Your task to perform on an android device: change your default location settings in chrome Image 0: 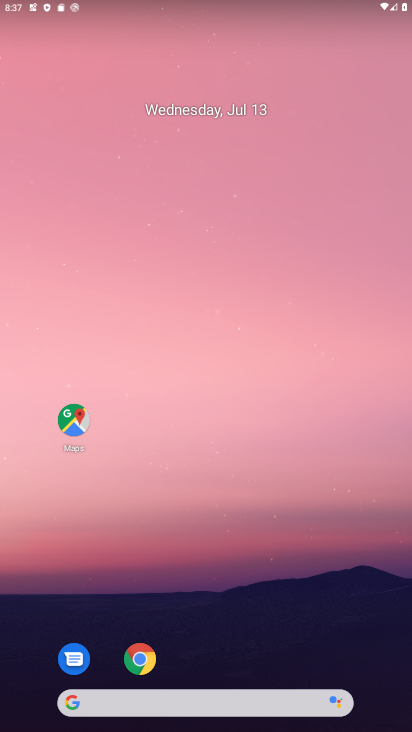
Step 0: drag from (46, 590) to (302, 44)
Your task to perform on an android device: change your default location settings in chrome Image 1: 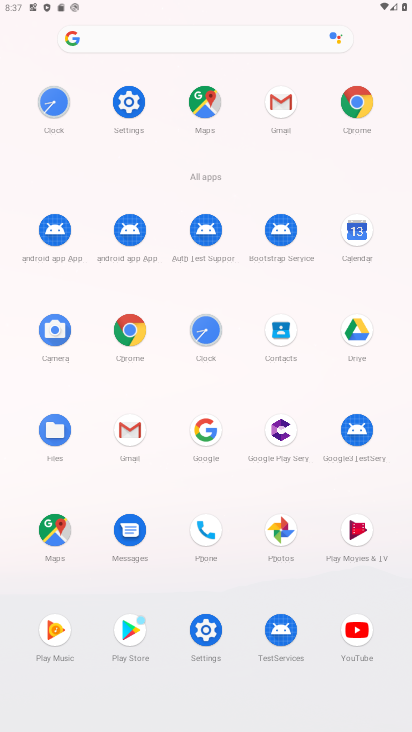
Step 1: click (129, 105)
Your task to perform on an android device: change your default location settings in chrome Image 2: 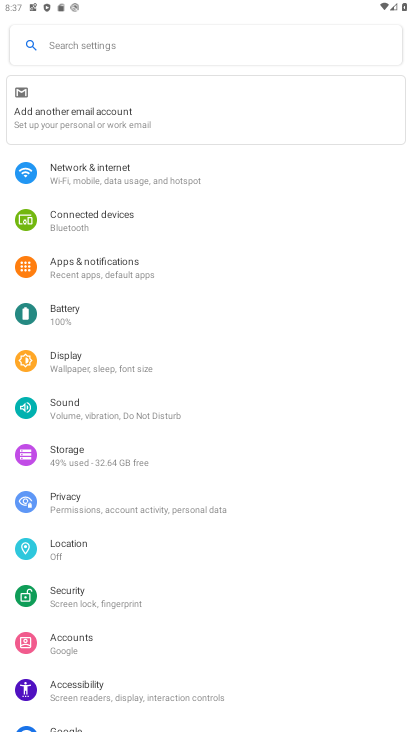
Step 2: press home button
Your task to perform on an android device: change your default location settings in chrome Image 3: 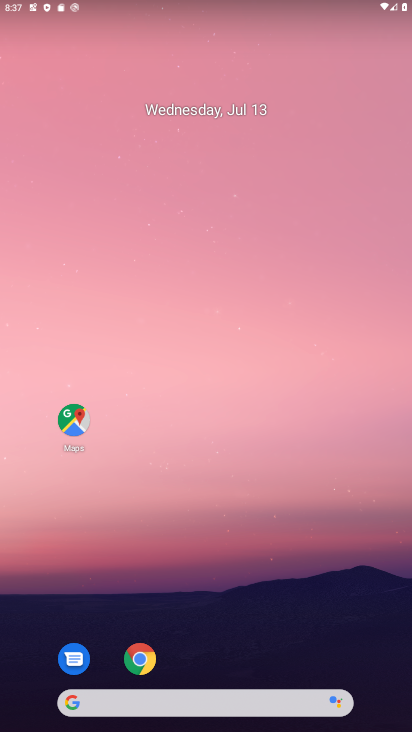
Step 3: click (141, 655)
Your task to perform on an android device: change your default location settings in chrome Image 4: 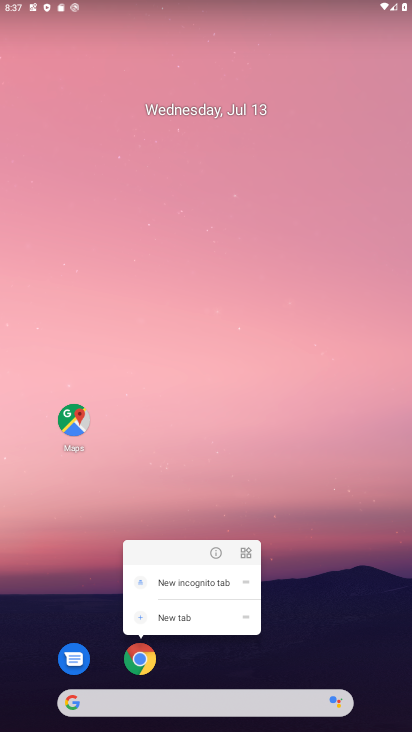
Step 4: click (133, 661)
Your task to perform on an android device: change your default location settings in chrome Image 5: 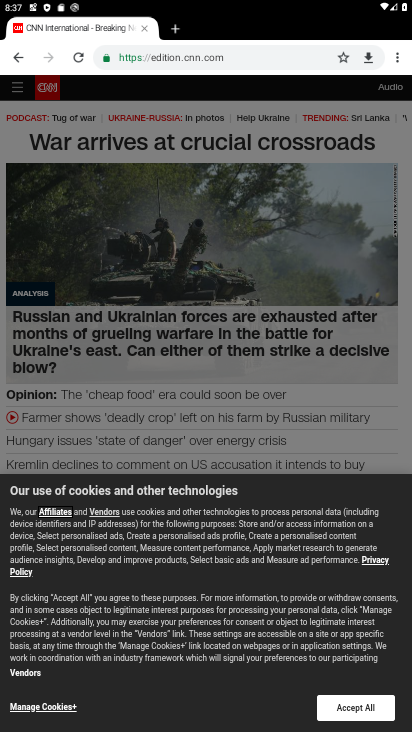
Step 5: press back button
Your task to perform on an android device: change your default location settings in chrome Image 6: 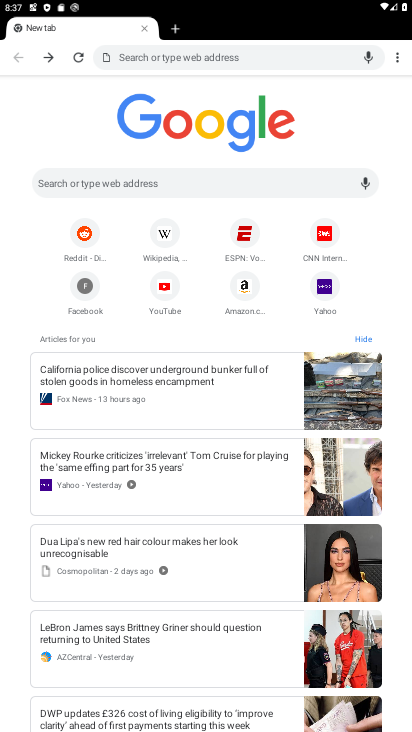
Step 6: click (399, 61)
Your task to perform on an android device: change your default location settings in chrome Image 7: 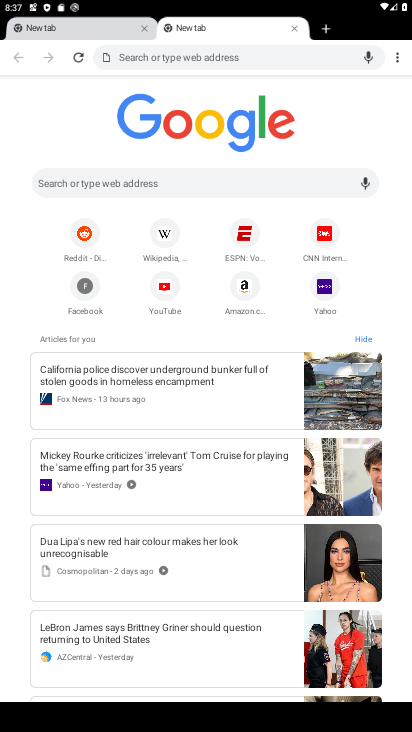
Step 7: click (398, 59)
Your task to perform on an android device: change your default location settings in chrome Image 8: 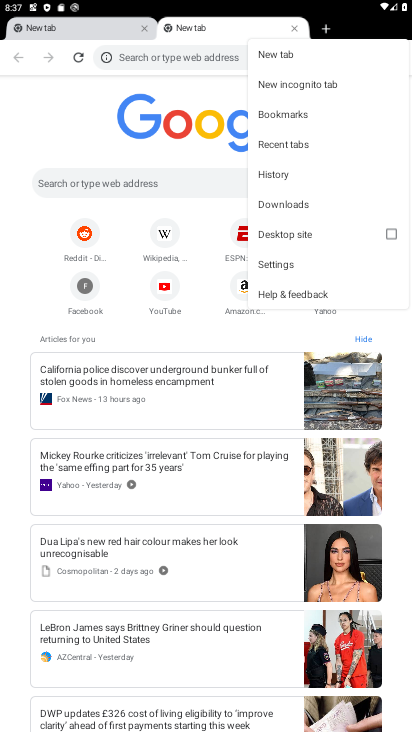
Step 8: click (281, 261)
Your task to perform on an android device: change your default location settings in chrome Image 9: 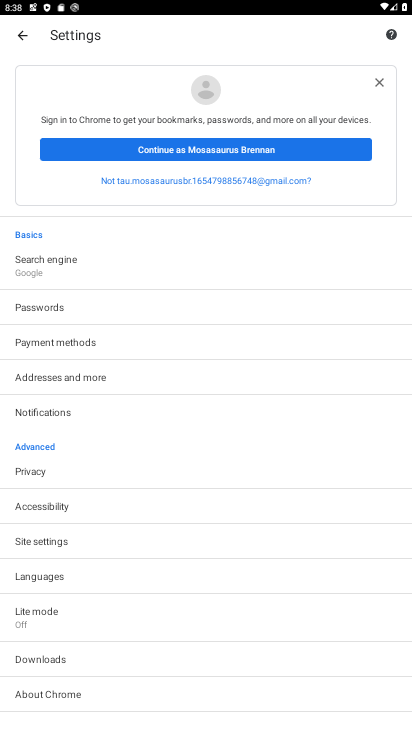
Step 9: click (57, 542)
Your task to perform on an android device: change your default location settings in chrome Image 10: 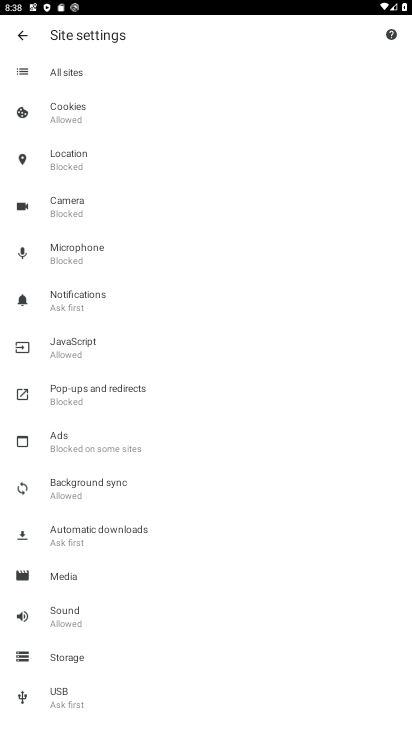
Step 10: click (123, 151)
Your task to perform on an android device: change your default location settings in chrome Image 11: 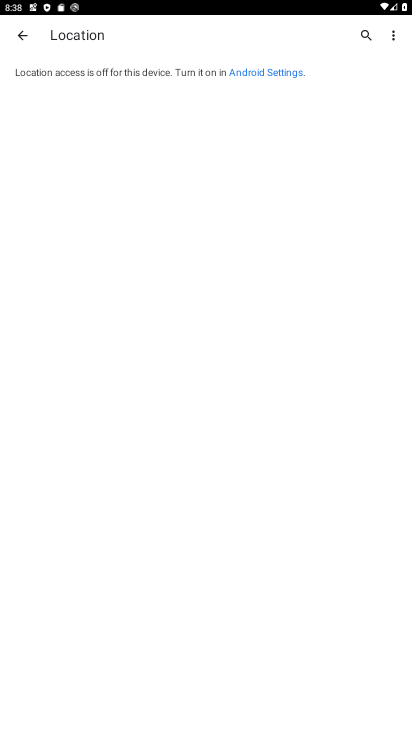
Step 11: task complete